Your task to perform on an android device: Open settings Image 0: 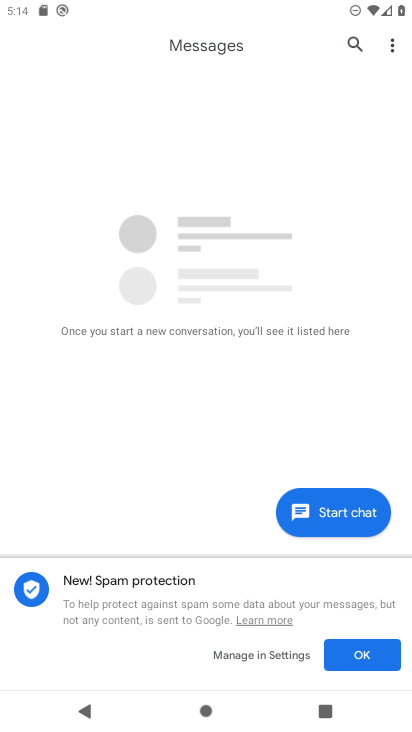
Step 0: press home button
Your task to perform on an android device: Open settings Image 1: 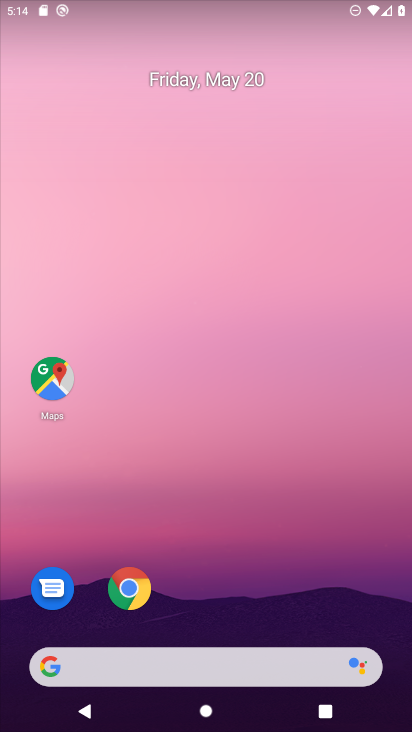
Step 1: click (242, 231)
Your task to perform on an android device: Open settings Image 2: 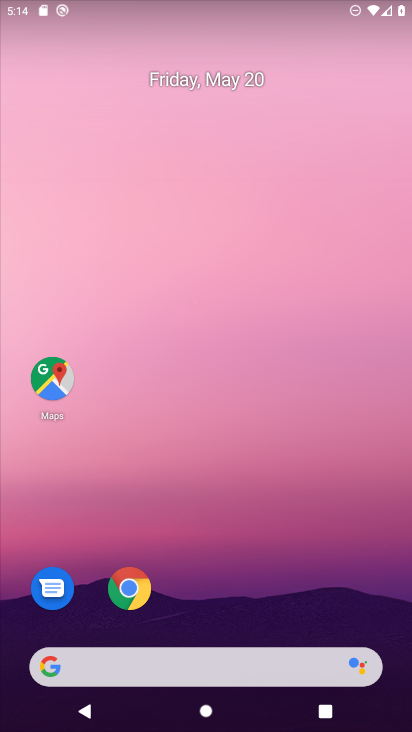
Step 2: drag from (208, 559) to (237, 219)
Your task to perform on an android device: Open settings Image 3: 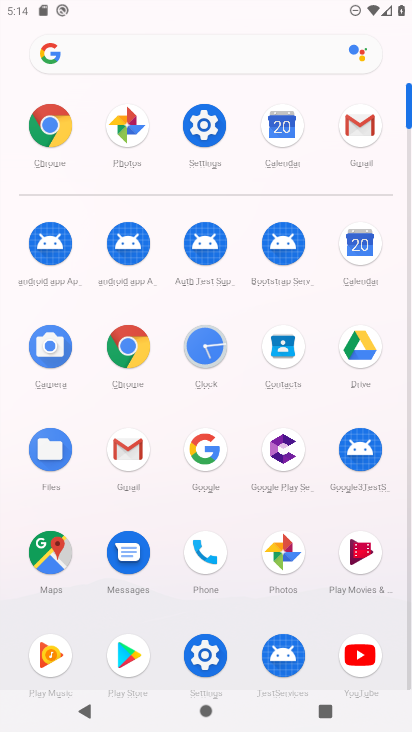
Step 3: click (198, 136)
Your task to perform on an android device: Open settings Image 4: 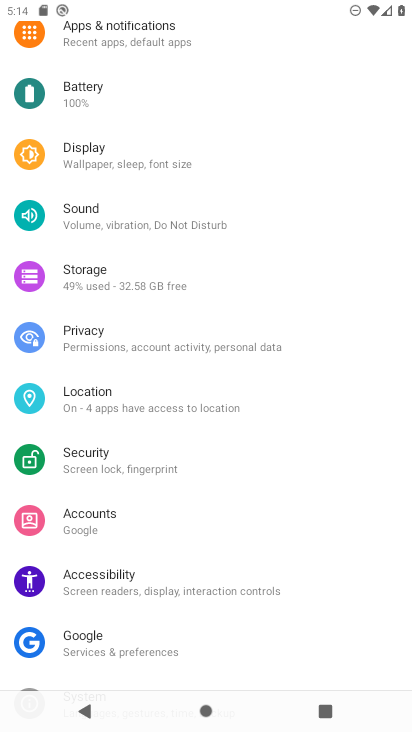
Step 4: task complete